Your task to perform on an android device: toggle improve location accuracy Image 0: 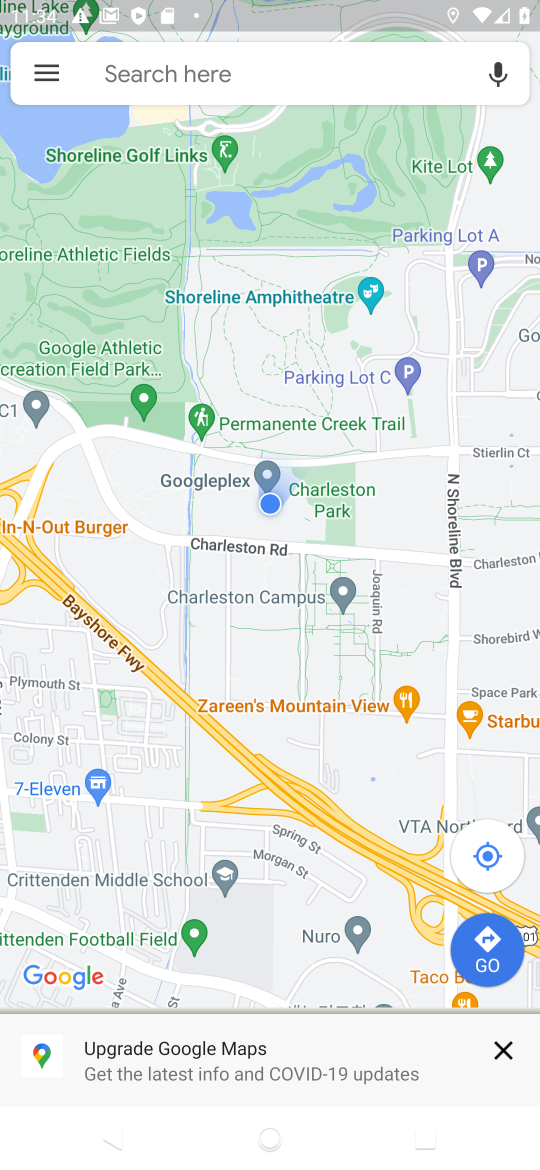
Step 0: click (264, 977)
Your task to perform on an android device: toggle improve location accuracy Image 1: 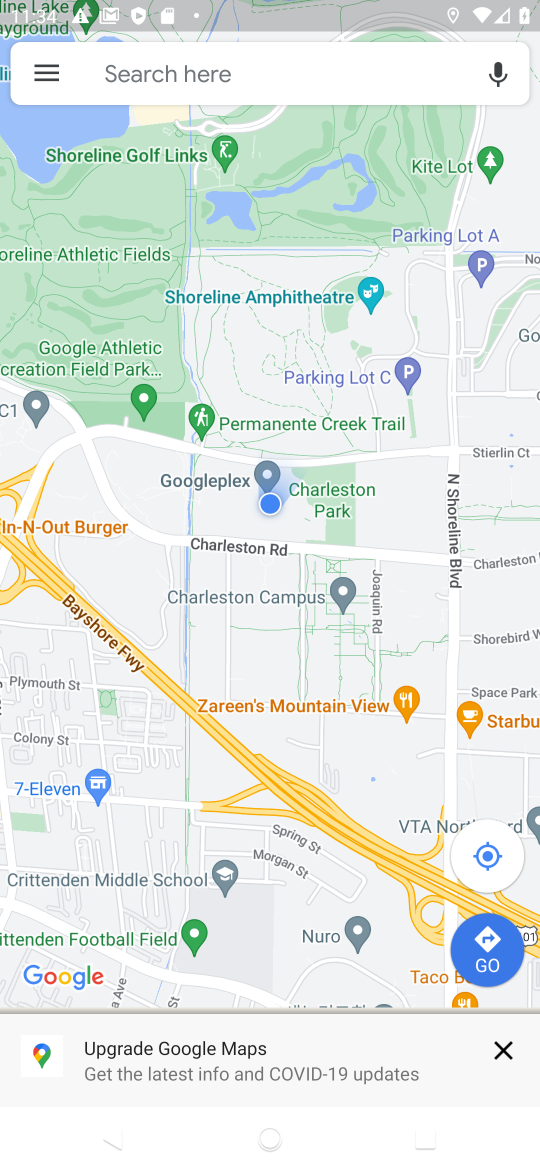
Step 1: press home button
Your task to perform on an android device: toggle improve location accuracy Image 2: 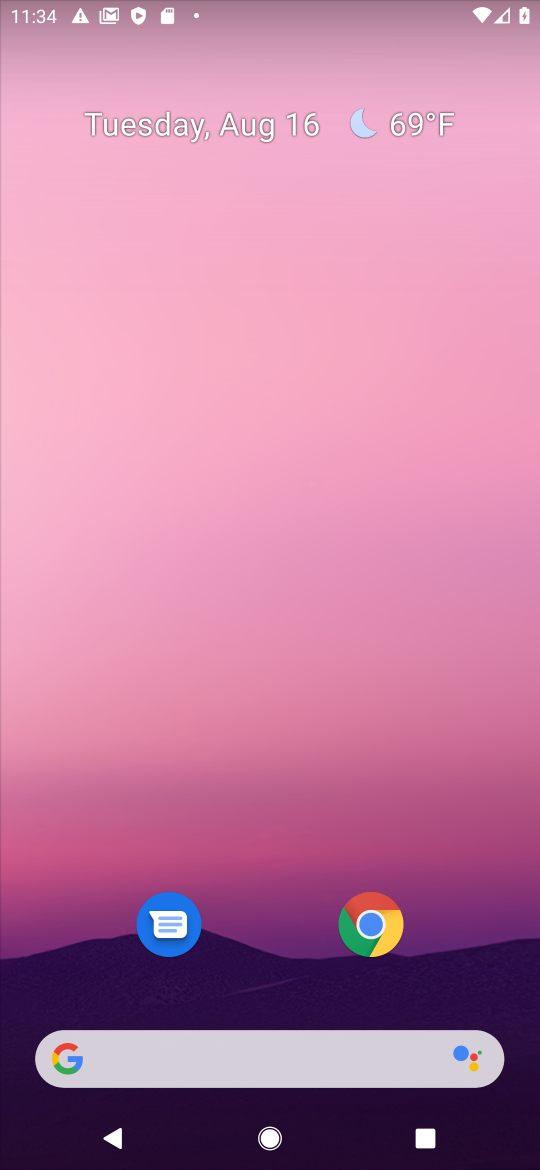
Step 2: drag from (279, 954) to (356, 196)
Your task to perform on an android device: toggle improve location accuracy Image 3: 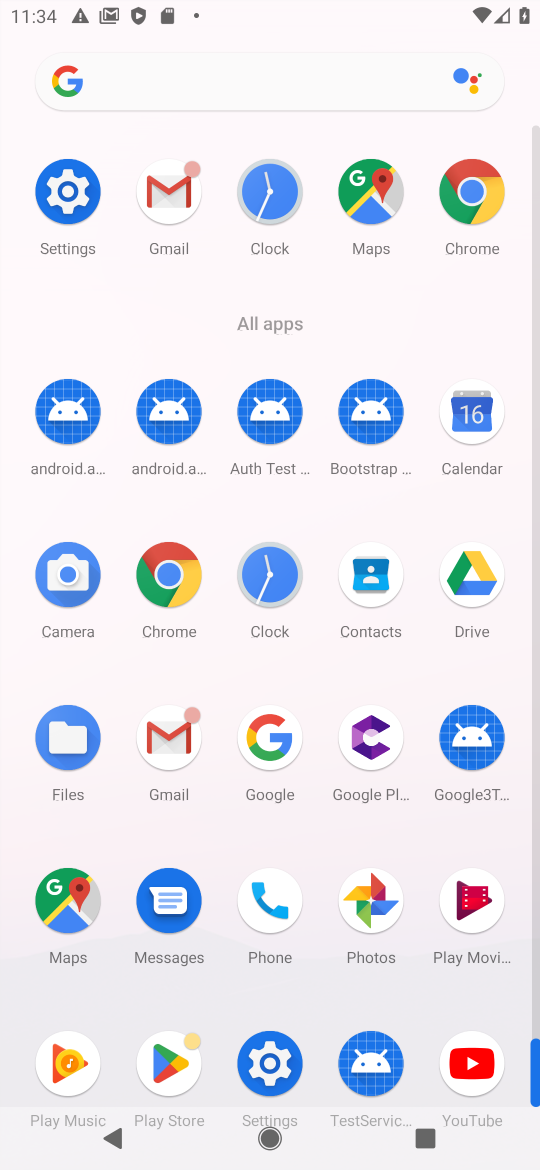
Step 3: click (88, 218)
Your task to perform on an android device: toggle improve location accuracy Image 4: 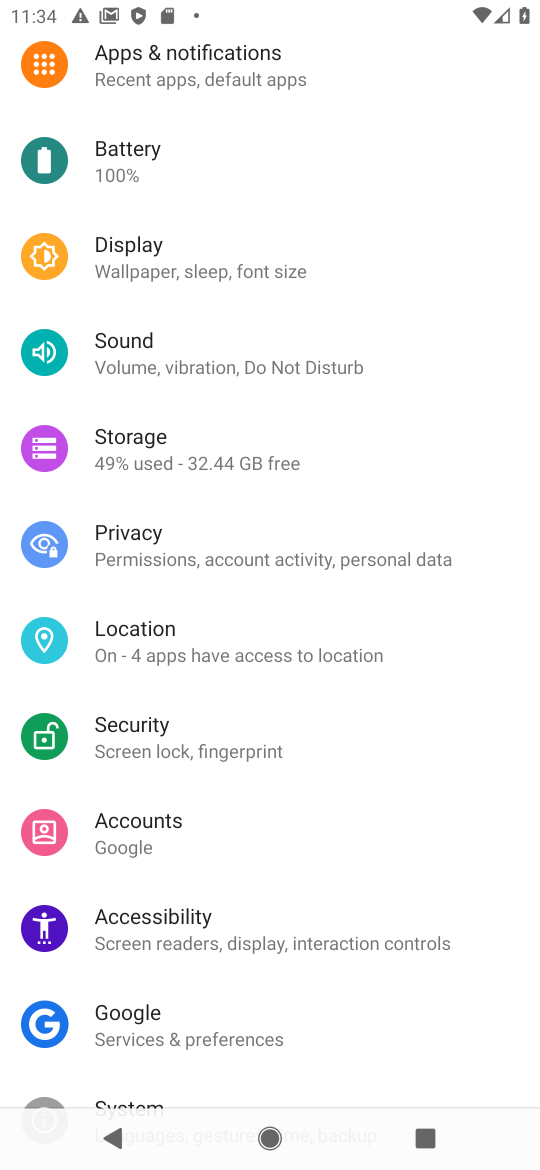
Step 4: click (188, 618)
Your task to perform on an android device: toggle improve location accuracy Image 5: 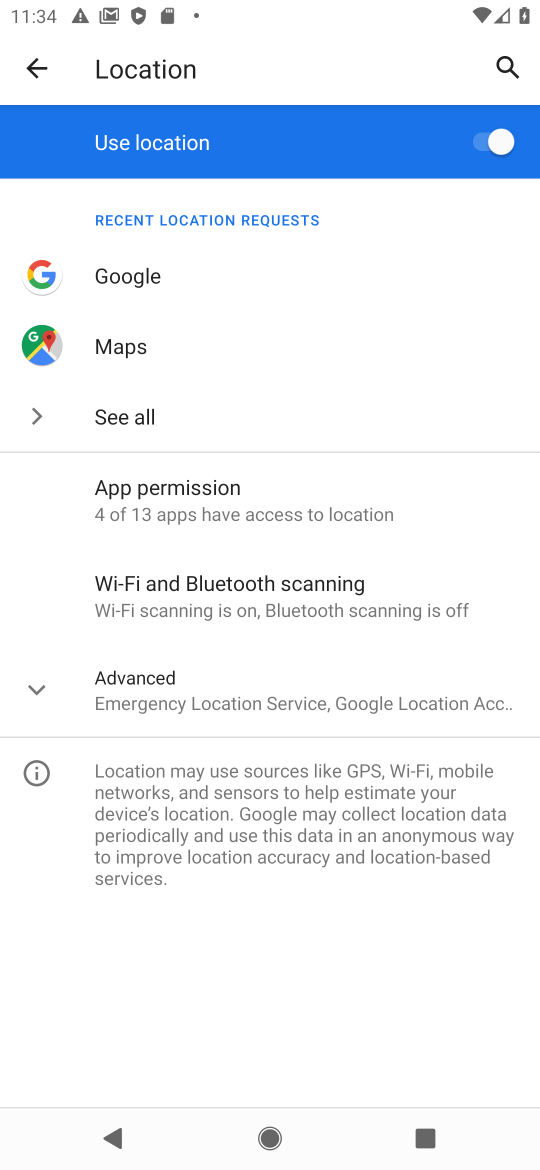
Step 5: click (188, 684)
Your task to perform on an android device: toggle improve location accuracy Image 6: 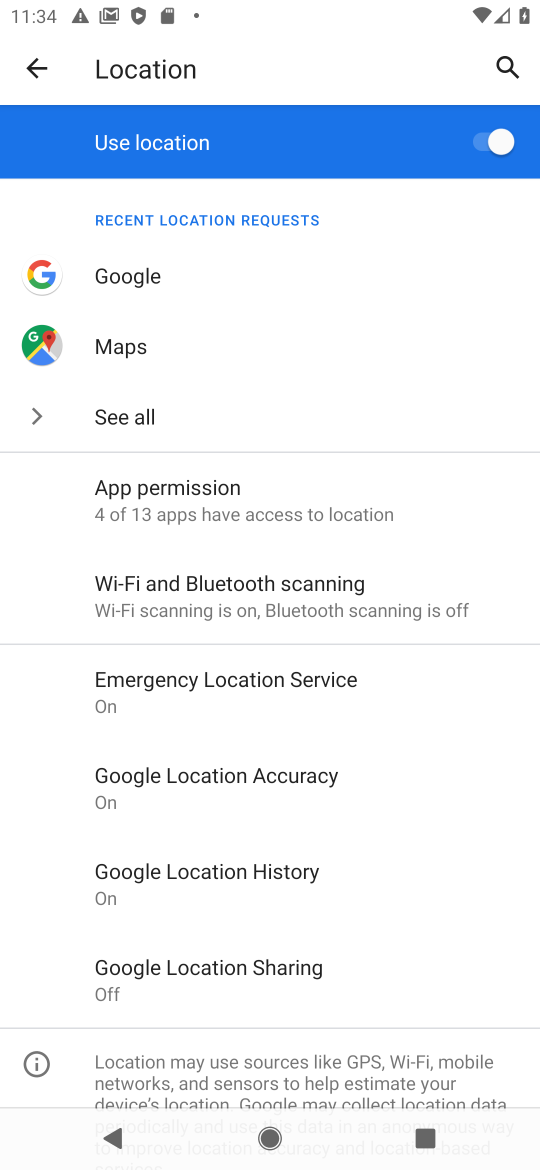
Step 6: click (305, 808)
Your task to perform on an android device: toggle improve location accuracy Image 7: 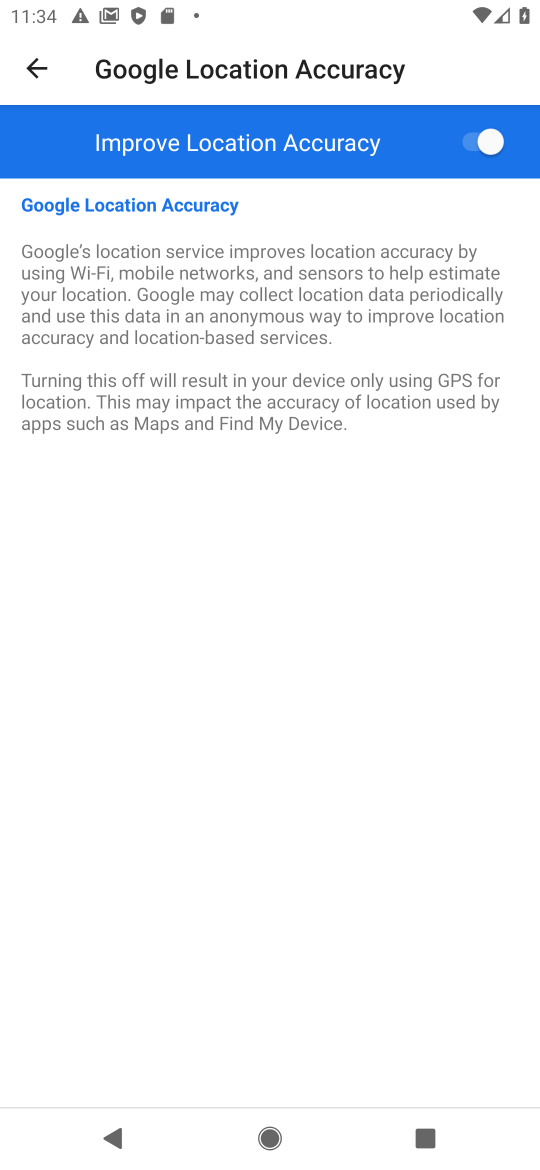
Step 7: task complete